Your task to perform on an android device: Search for sushi restaurants on Maps Image 0: 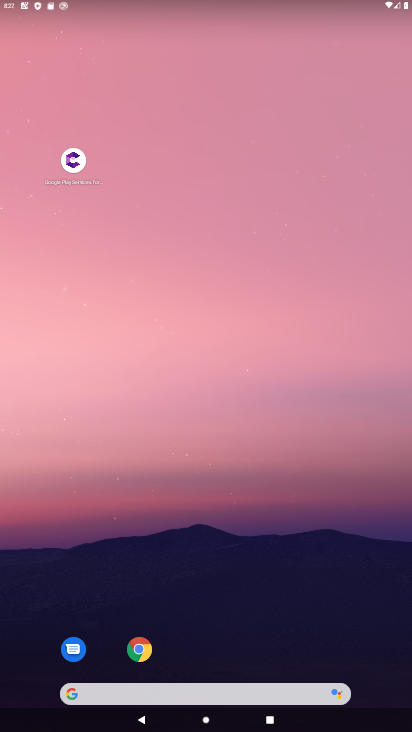
Step 0: drag from (212, 661) to (50, 20)
Your task to perform on an android device: Search for sushi restaurants on Maps Image 1: 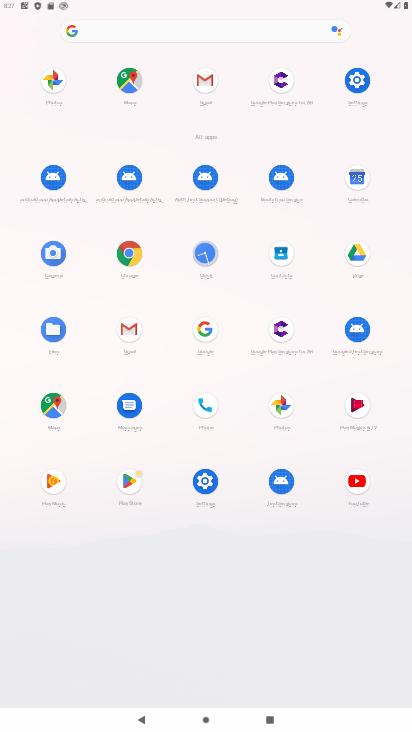
Step 1: click (59, 396)
Your task to perform on an android device: Search for sushi restaurants on Maps Image 2: 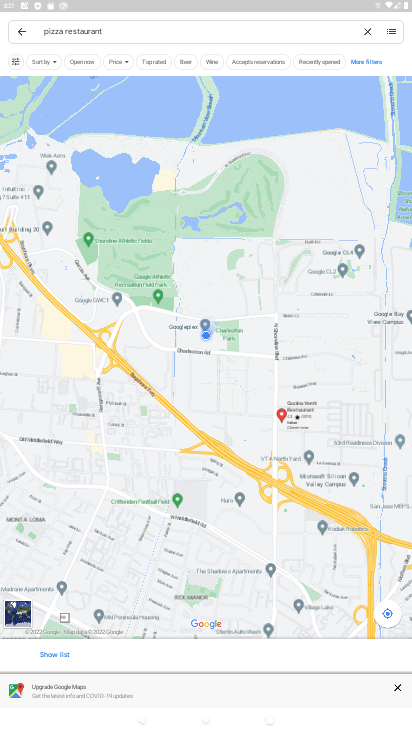
Step 2: click (365, 29)
Your task to perform on an android device: Search for sushi restaurants on Maps Image 3: 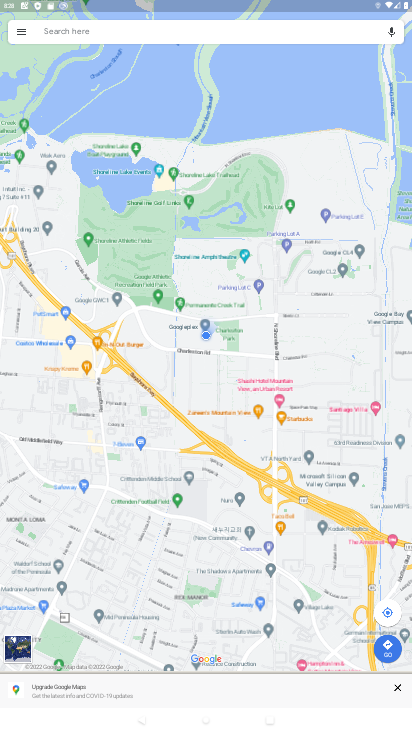
Step 3: click (77, 35)
Your task to perform on an android device: Search for sushi restaurants on Maps Image 4: 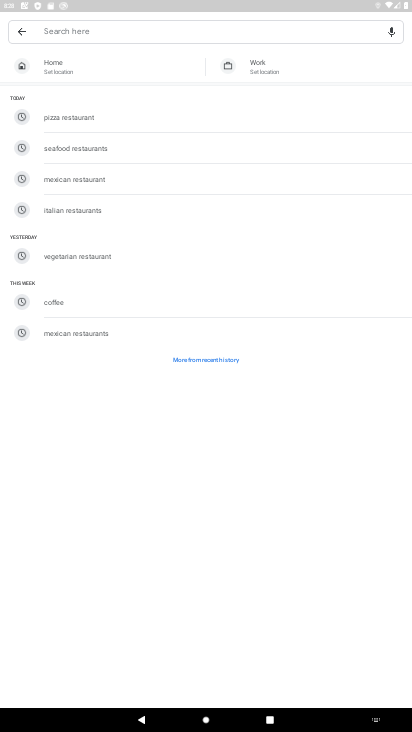
Step 4: type "sushi restaurants "
Your task to perform on an android device: Search for sushi restaurants on Maps Image 5: 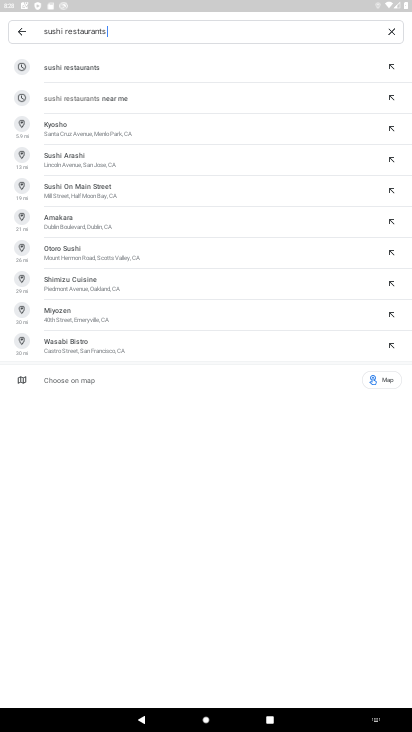
Step 5: click (66, 66)
Your task to perform on an android device: Search for sushi restaurants on Maps Image 6: 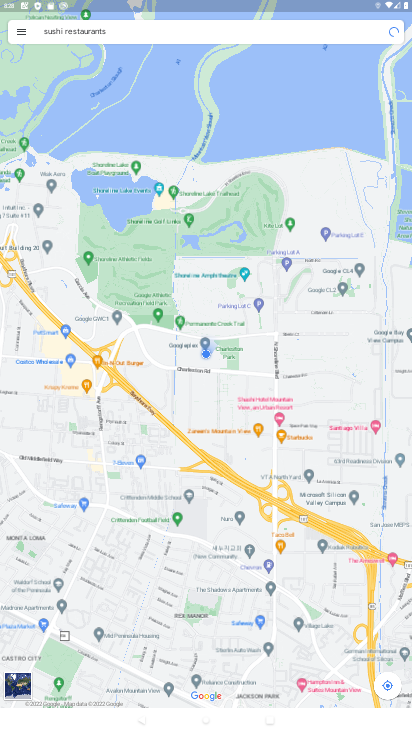
Step 6: task complete